Your task to perform on an android device: Open Youtube and go to the subscriptions tab Image 0: 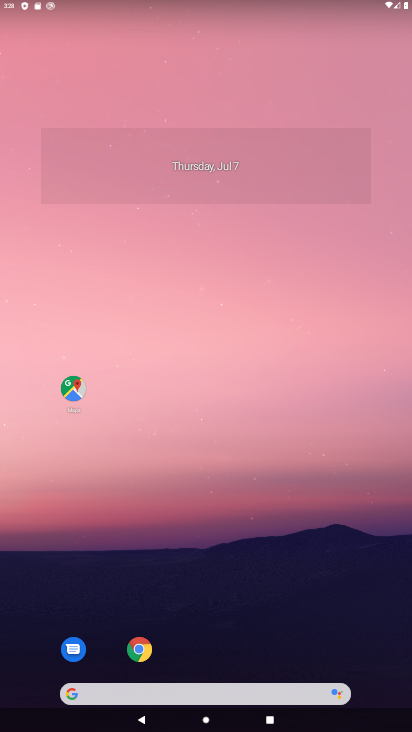
Step 0: drag from (359, 609) to (3, 327)
Your task to perform on an android device: Open Youtube and go to the subscriptions tab Image 1: 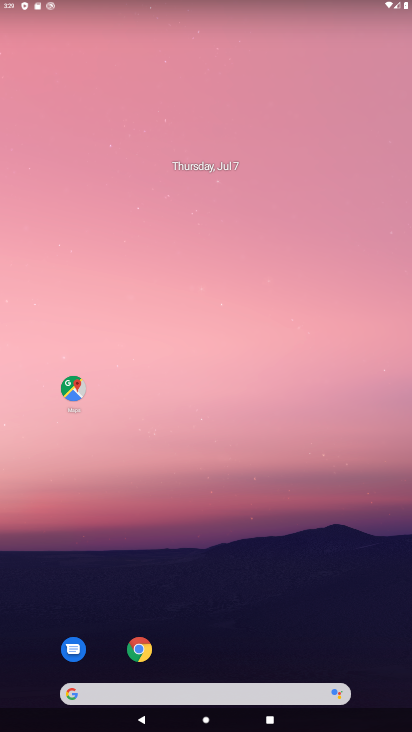
Step 1: drag from (370, 683) to (193, 36)
Your task to perform on an android device: Open Youtube and go to the subscriptions tab Image 2: 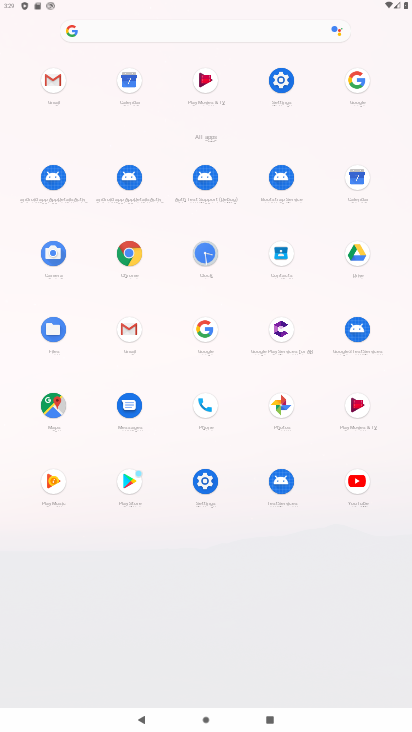
Step 2: click (354, 489)
Your task to perform on an android device: Open Youtube and go to the subscriptions tab Image 3: 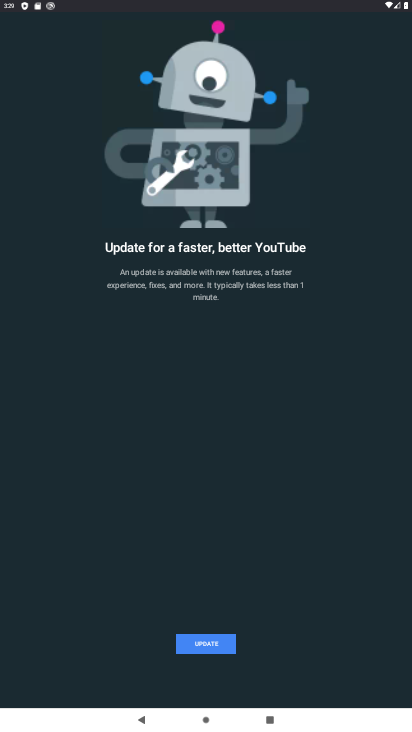
Step 3: press back button
Your task to perform on an android device: Open Youtube and go to the subscriptions tab Image 4: 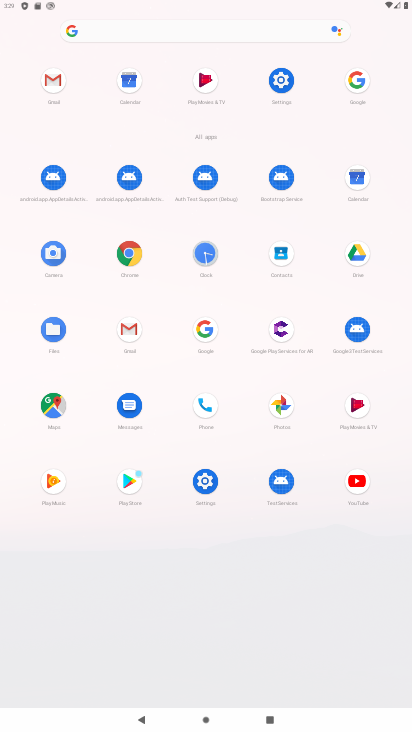
Step 4: click (344, 492)
Your task to perform on an android device: Open Youtube and go to the subscriptions tab Image 5: 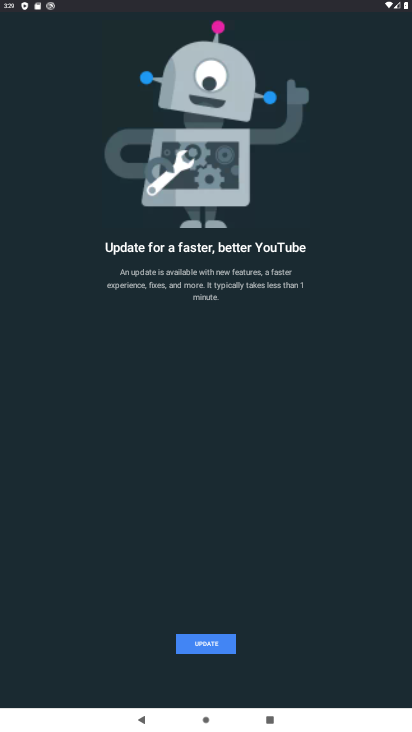
Step 5: click (202, 644)
Your task to perform on an android device: Open Youtube and go to the subscriptions tab Image 6: 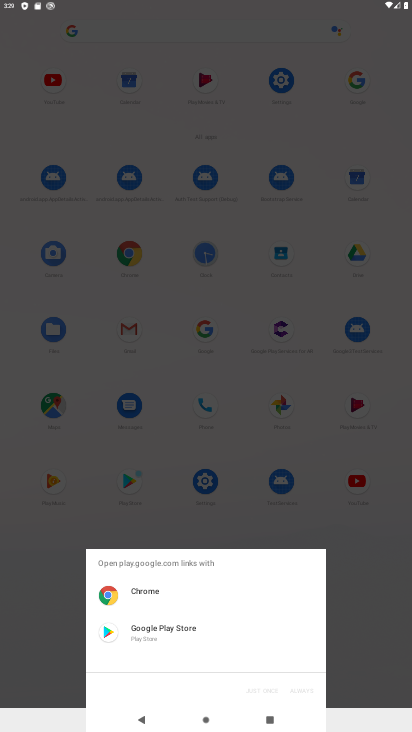
Step 6: click (194, 639)
Your task to perform on an android device: Open Youtube and go to the subscriptions tab Image 7: 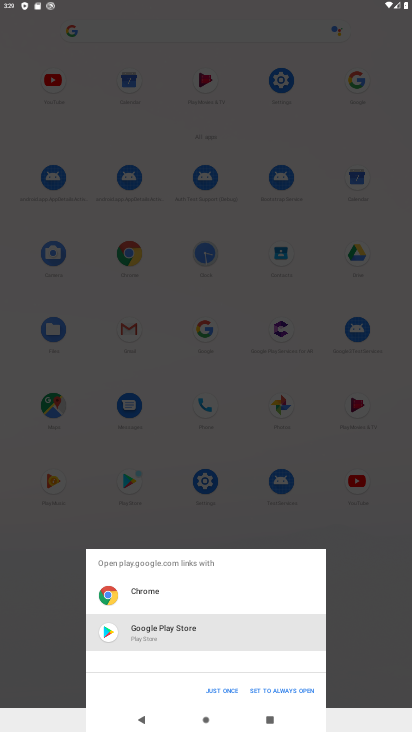
Step 7: click (227, 684)
Your task to perform on an android device: Open Youtube and go to the subscriptions tab Image 8: 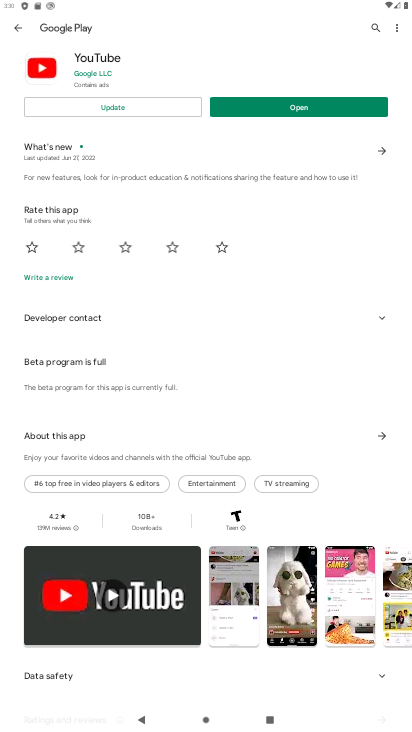
Step 8: click (112, 108)
Your task to perform on an android device: Open Youtube and go to the subscriptions tab Image 9: 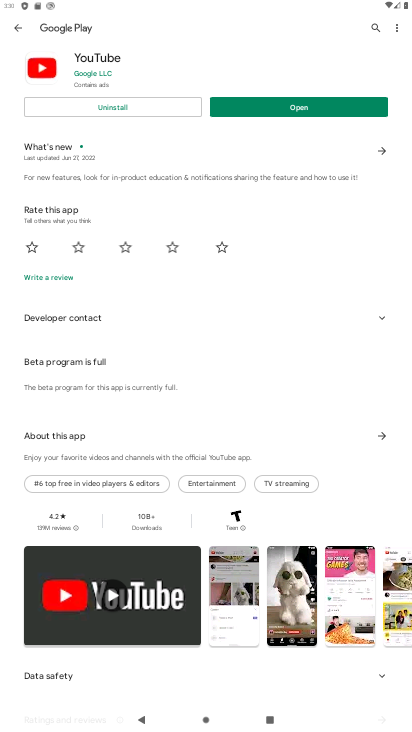
Step 9: click (304, 110)
Your task to perform on an android device: Open Youtube and go to the subscriptions tab Image 10: 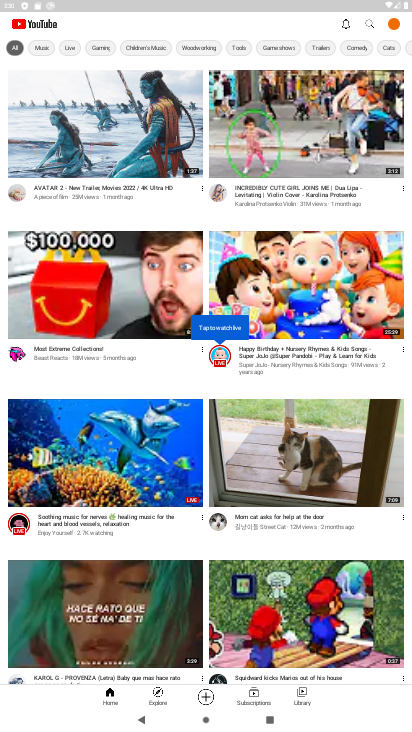
Step 10: click (257, 692)
Your task to perform on an android device: Open Youtube and go to the subscriptions tab Image 11: 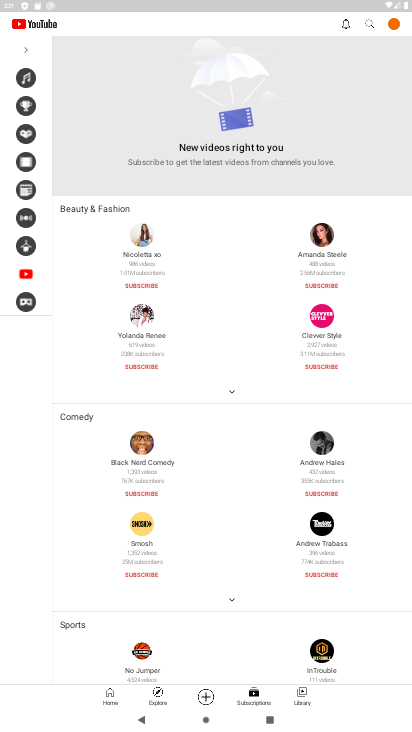
Step 11: task complete